Your task to perform on an android device: Go to privacy settings Image 0: 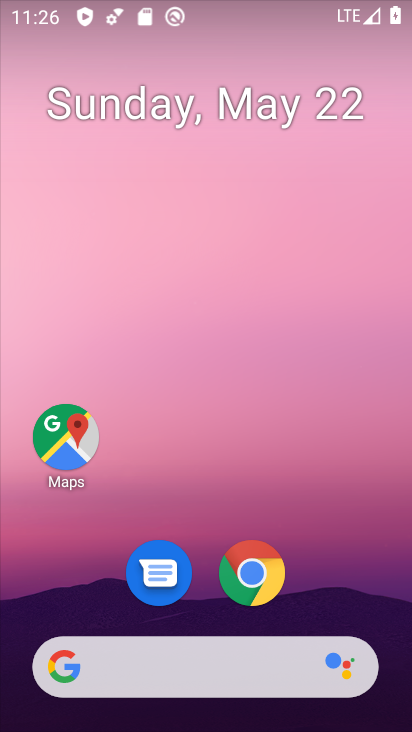
Step 0: drag from (303, 590) to (66, 8)
Your task to perform on an android device: Go to privacy settings Image 1: 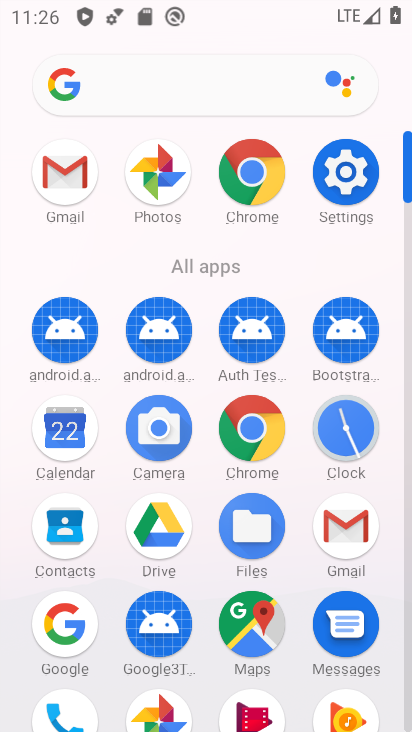
Step 1: click (352, 187)
Your task to perform on an android device: Go to privacy settings Image 2: 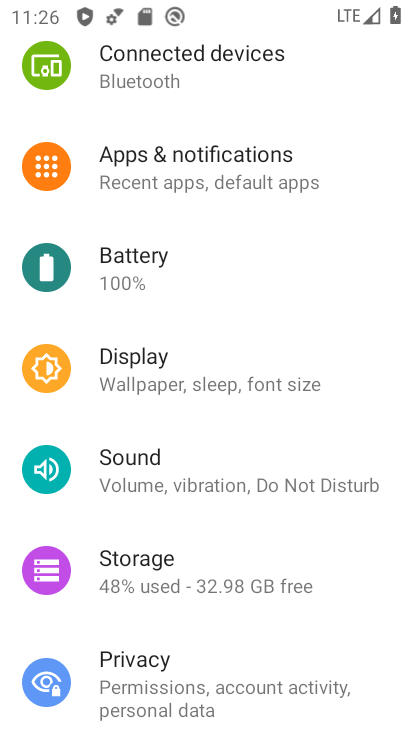
Step 2: click (162, 666)
Your task to perform on an android device: Go to privacy settings Image 3: 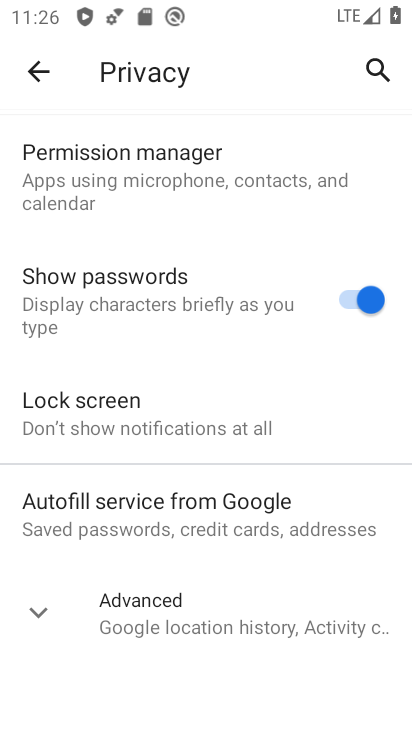
Step 3: task complete